Your task to perform on an android device: Go to sound settings Image 0: 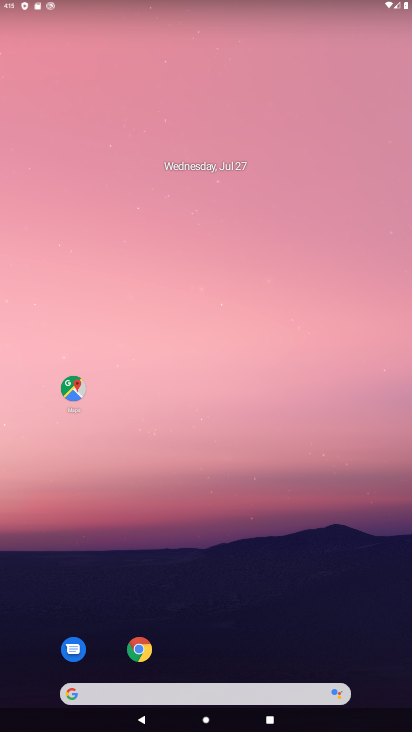
Step 0: drag from (203, 421) to (225, 35)
Your task to perform on an android device: Go to sound settings Image 1: 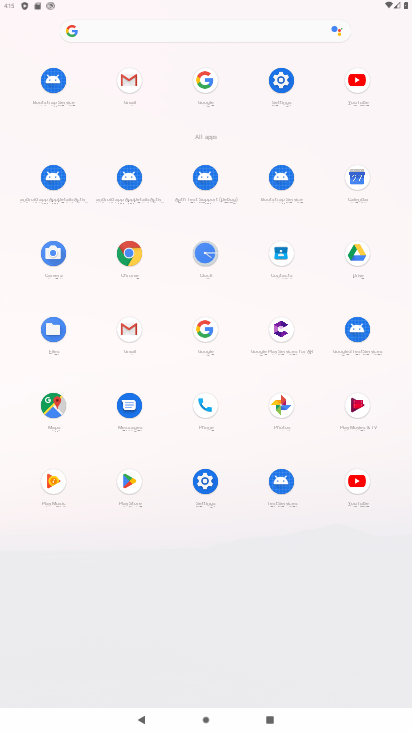
Step 1: click (279, 79)
Your task to perform on an android device: Go to sound settings Image 2: 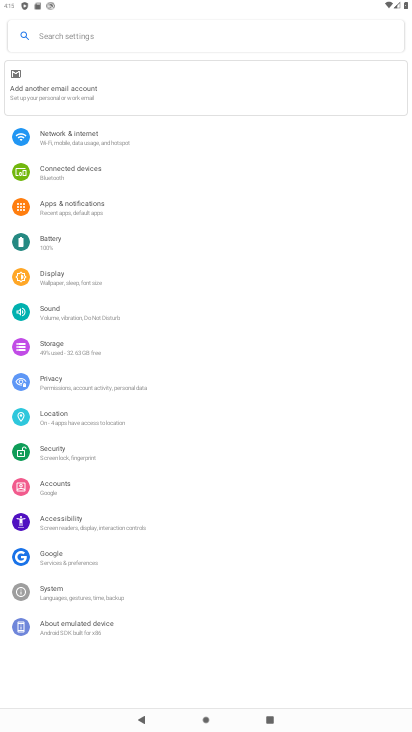
Step 2: click (40, 319)
Your task to perform on an android device: Go to sound settings Image 3: 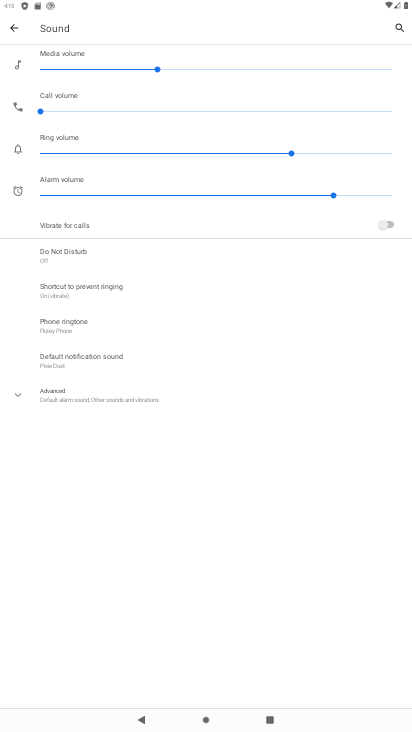
Step 3: task complete